Your task to perform on an android device: change the clock display to show seconds Image 0: 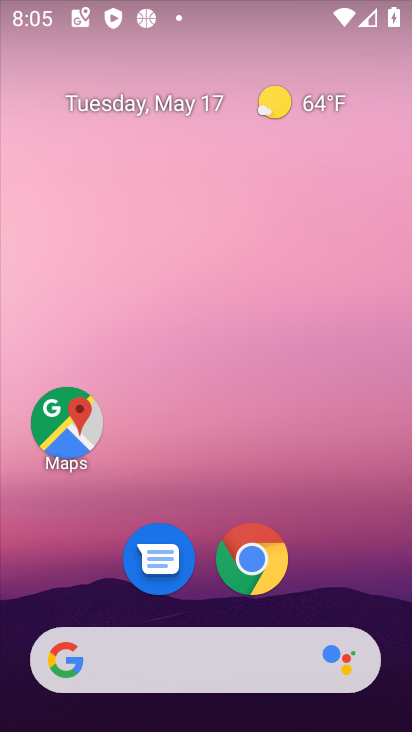
Step 0: drag from (200, 621) to (184, 30)
Your task to perform on an android device: change the clock display to show seconds Image 1: 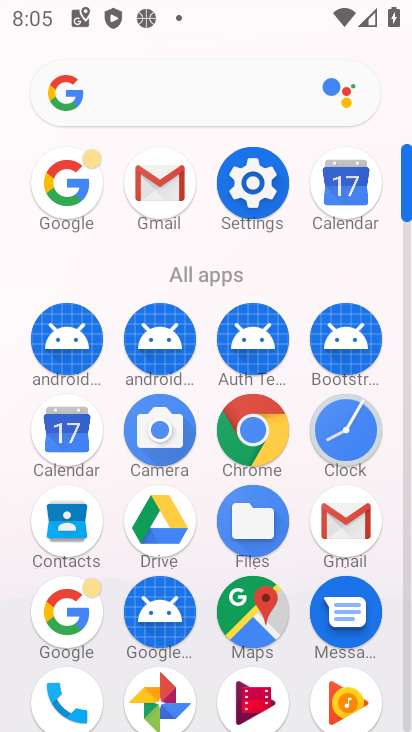
Step 1: click (342, 431)
Your task to perform on an android device: change the clock display to show seconds Image 2: 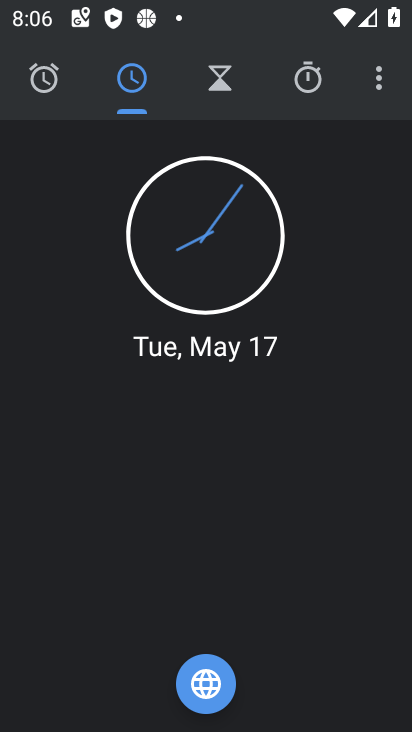
Step 2: click (383, 76)
Your task to perform on an android device: change the clock display to show seconds Image 3: 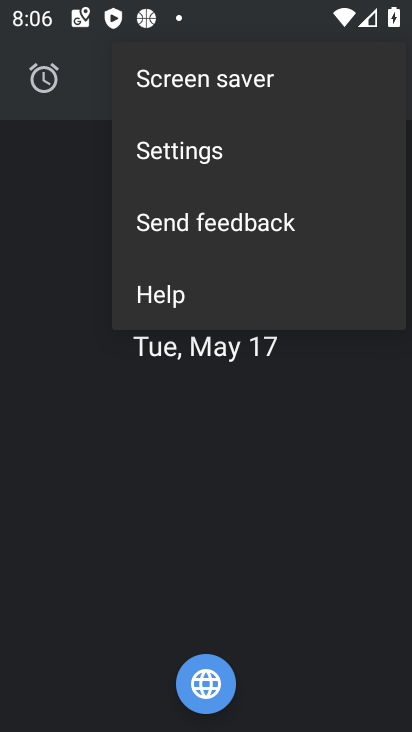
Step 3: click (171, 150)
Your task to perform on an android device: change the clock display to show seconds Image 4: 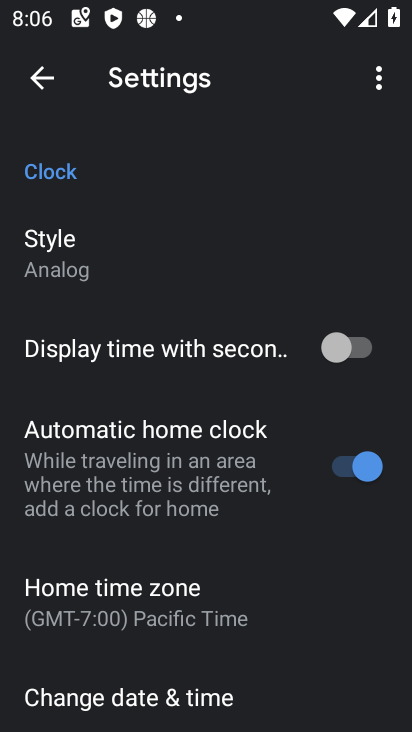
Step 4: click (329, 338)
Your task to perform on an android device: change the clock display to show seconds Image 5: 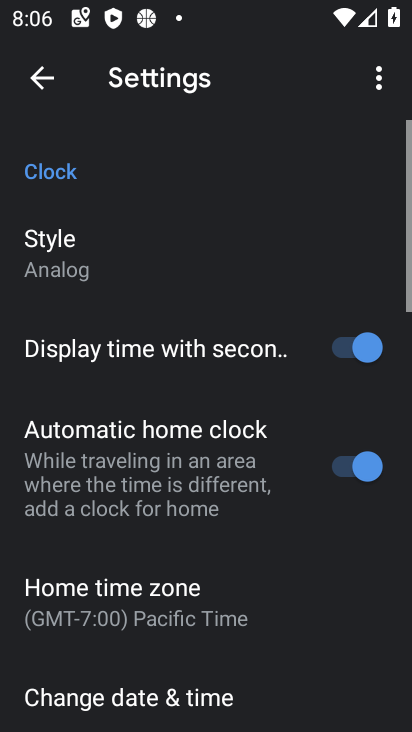
Step 5: task complete